Your task to perform on an android device: Show me recent news Image 0: 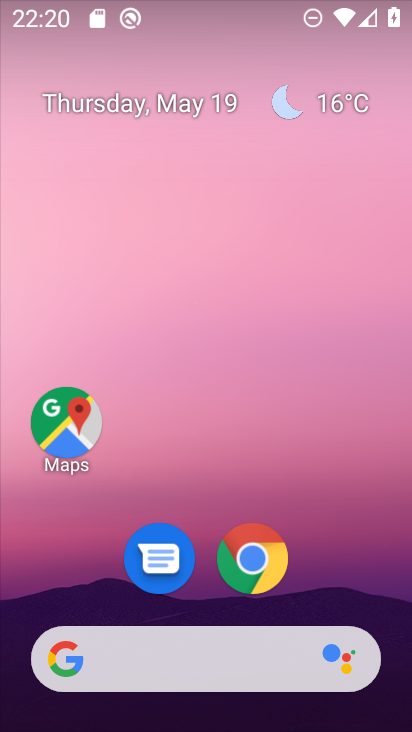
Step 0: drag from (4, 299) to (367, 282)
Your task to perform on an android device: Show me recent news Image 1: 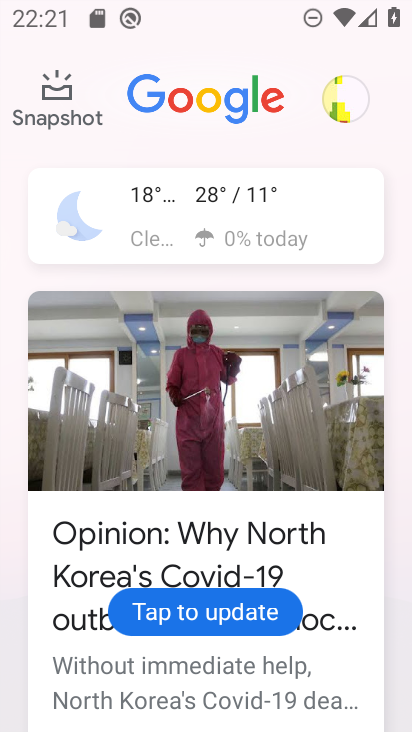
Step 1: task complete